Your task to perform on an android device: find snoozed emails in the gmail app Image 0: 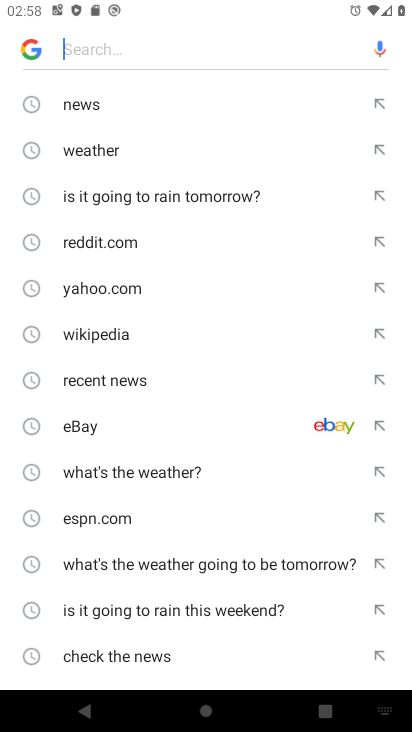
Step 0: press home button
Your task to perform on an android device: find snoozed emails in the gmail app Image 1: 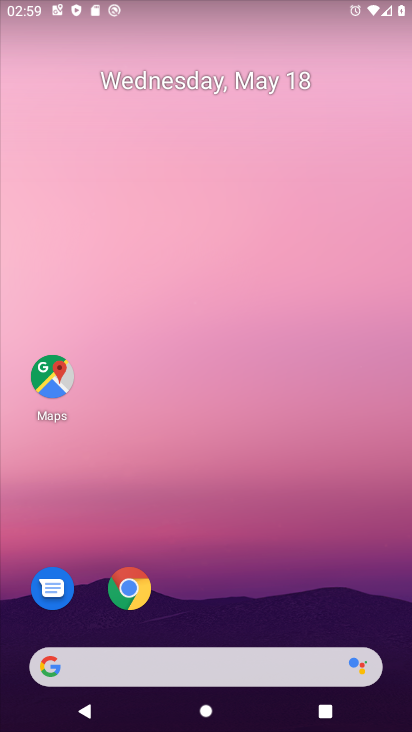
Step 1: drag from (30, 455) to (224, 111)
Your task to perform on an android device: find snoozed emails in the gmail app Image 2: 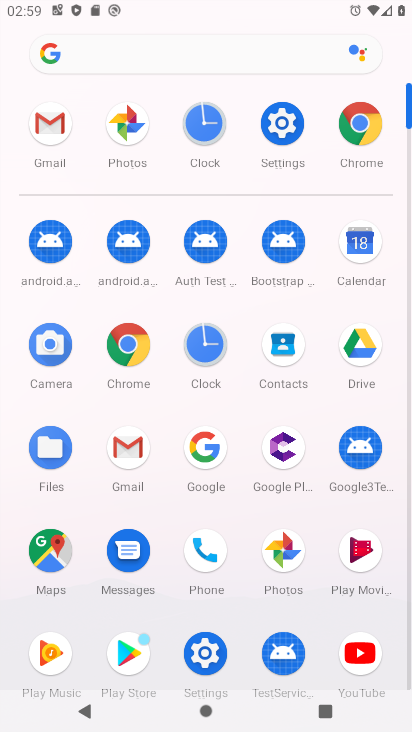
Step 2: click (128, 454)
Your task to perform on an android device: find snoozed emails in the gmail app Image 3: 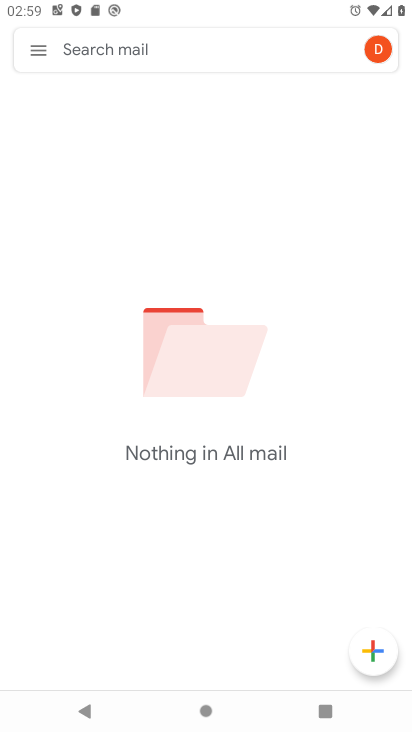
Step 3: click (41, 52)
Your task to perform on an android device: find snoozed emails in the gmail app Image 4: 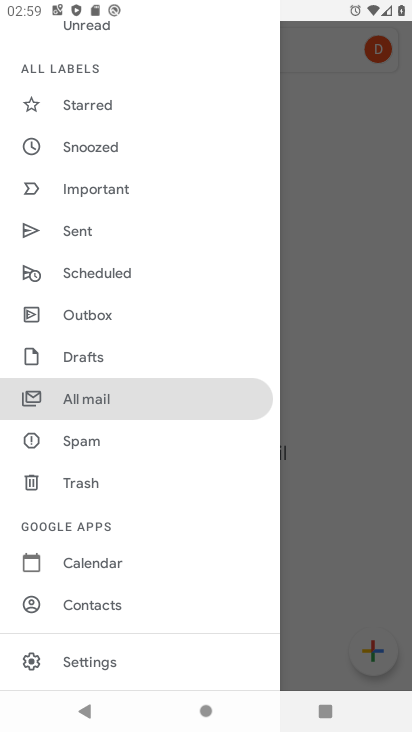
Step 4: click (49, 139)
Your task to perform on an android device: find snoozed emails in the gmail app Image 5: 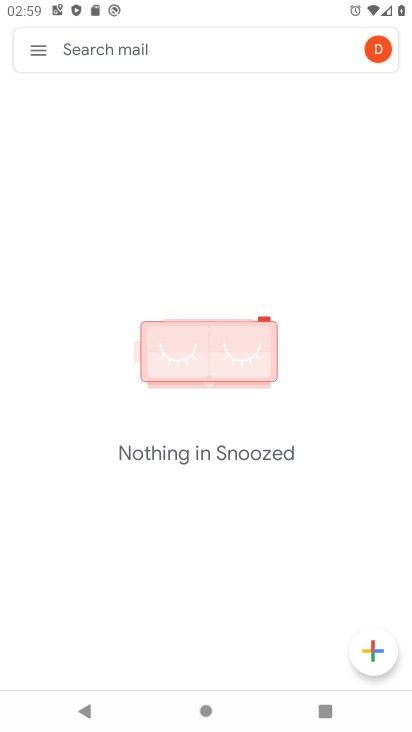
Step 5: task complete